Your task to perform on an android device: Clear all items from cart on walmart. Add acer predator to the cart on walmart, then select checkout. Image 0: 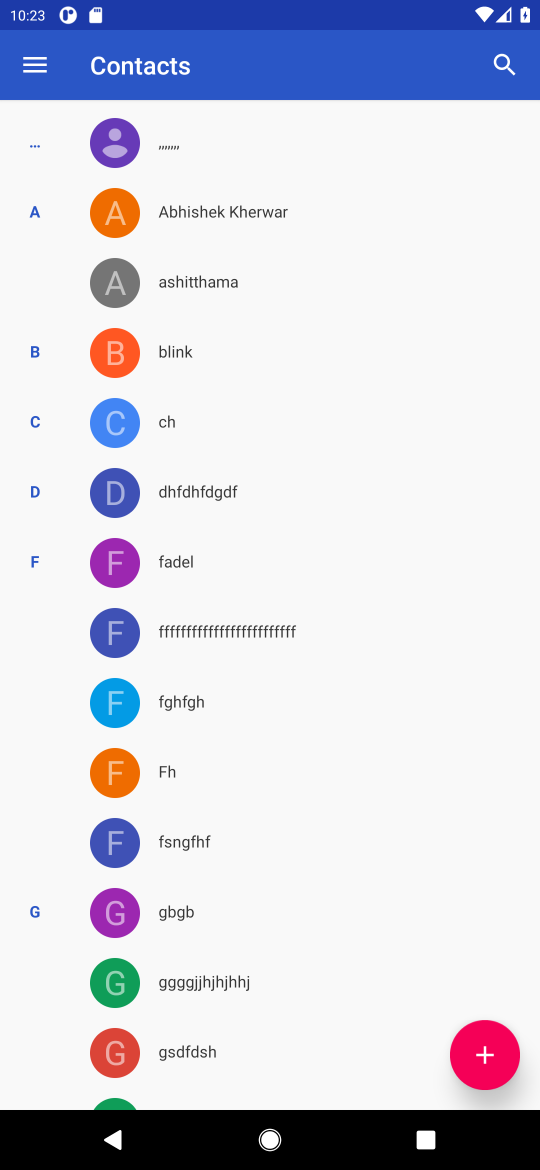
Step 0: press home button
Your task to perform on an android device: Clear all items from cart on walmart. Add acer predator to the cart on walmart, then select checkout. Image 1: 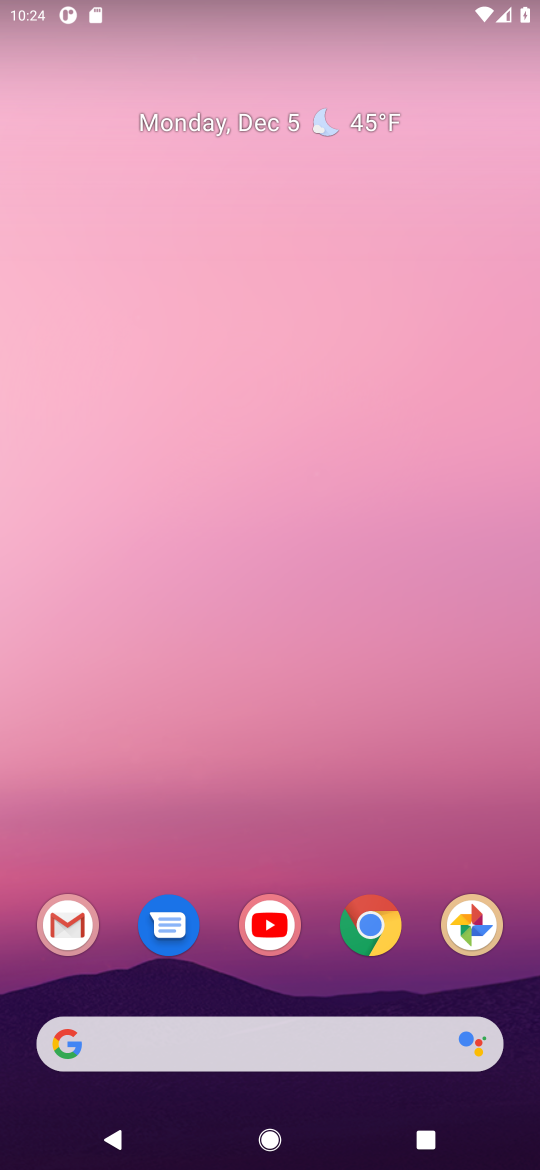
Step 1: click (363, 913)
Your task to perform on an android device: Clear all items from cart on walmart. Add acer predator to the cart on walmart, then select checkout. Image 2: 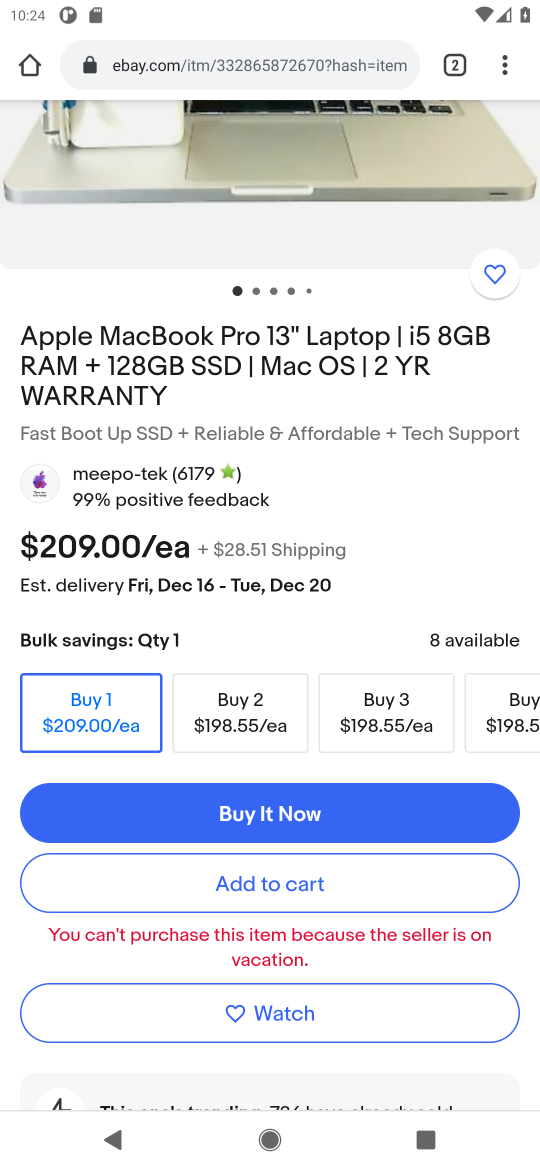
Step 2: click (223, 68)
Your task to perform on an android device: Clear all items from cart on walmart. Add acer predator to the cart on walmart, then select checkout. Image 3: 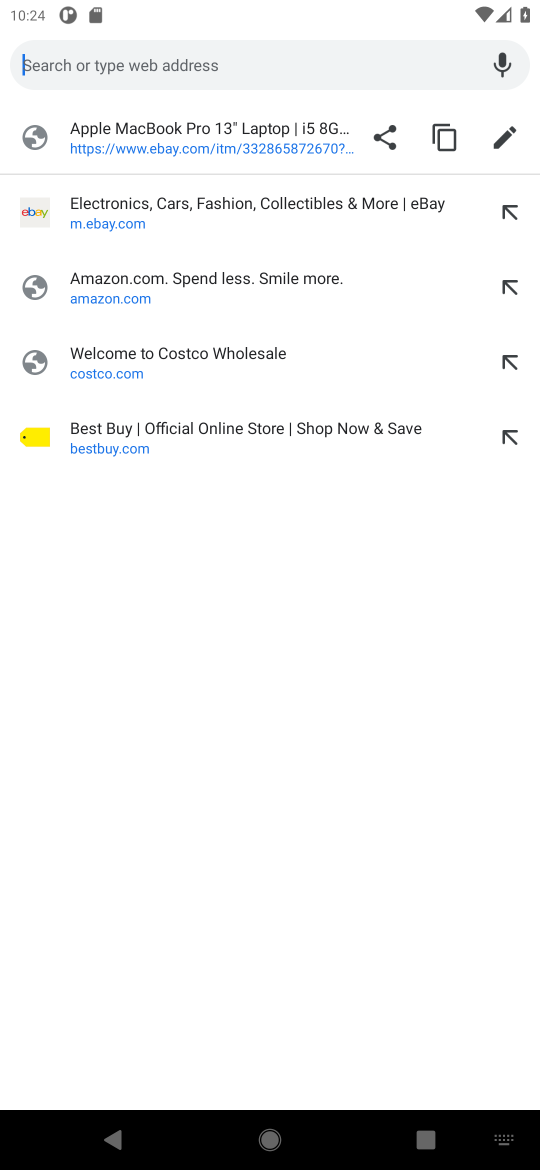
Step 3: type "walmart.com"
Your task to perform on an android device: Clear all items from cart on walmart. Add acer predator to the cart on walmart, then select checkout. Image 4: 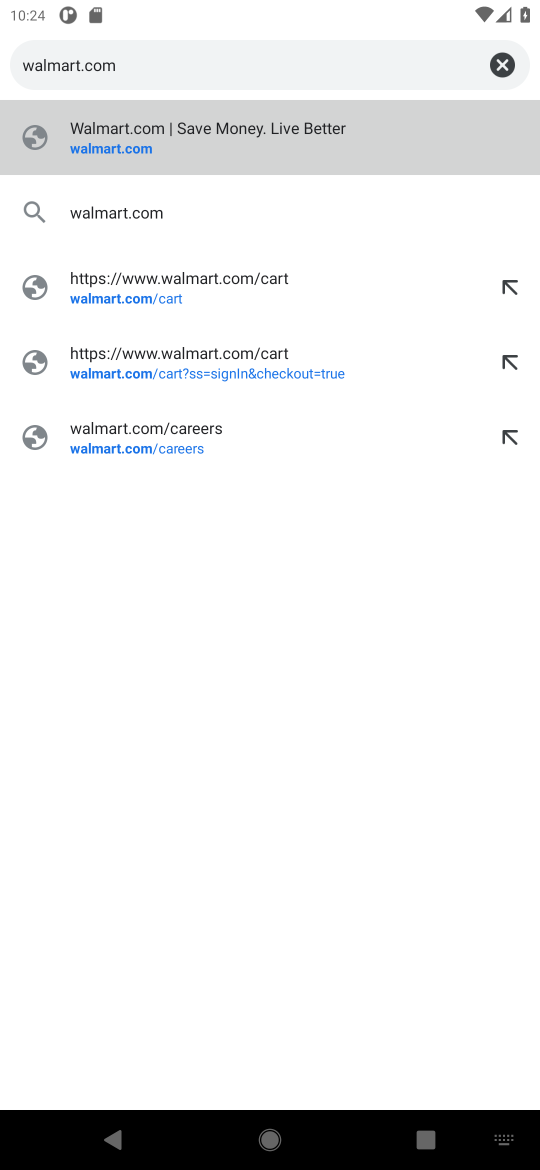
Step 4: click (81, 153)
Your task to perform on an android device: Clear all items from cart on walmart. Add acer predator to the cart on walmart, then select checkout. Image 5: 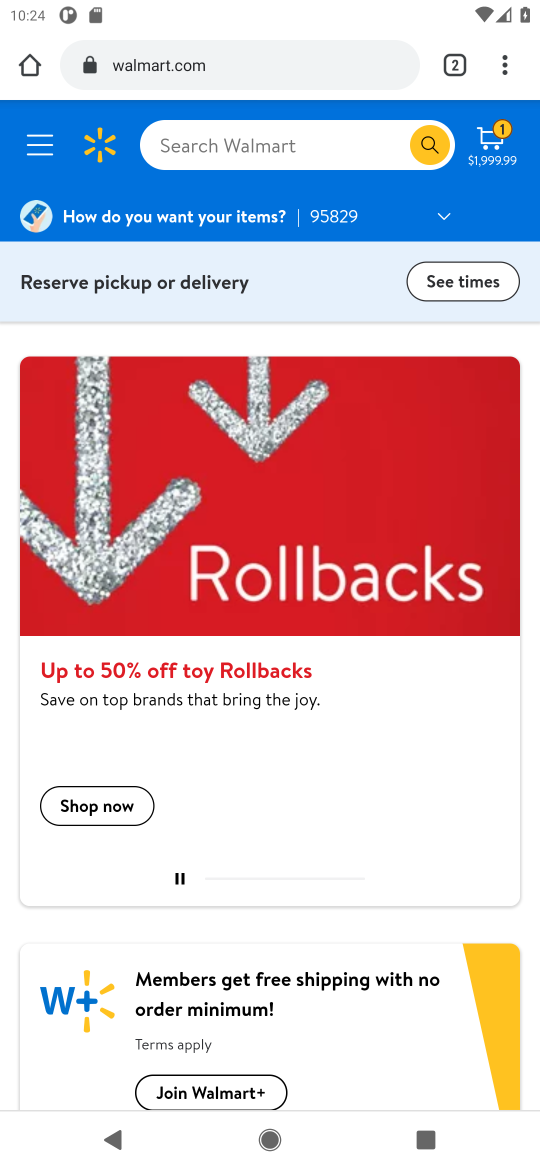
Step 5: click (499, 152)
Your task to perform on an android device: Clear all items from cart on walmart. Add acer predator to the cart on walmart, then select checkout. Image 6: 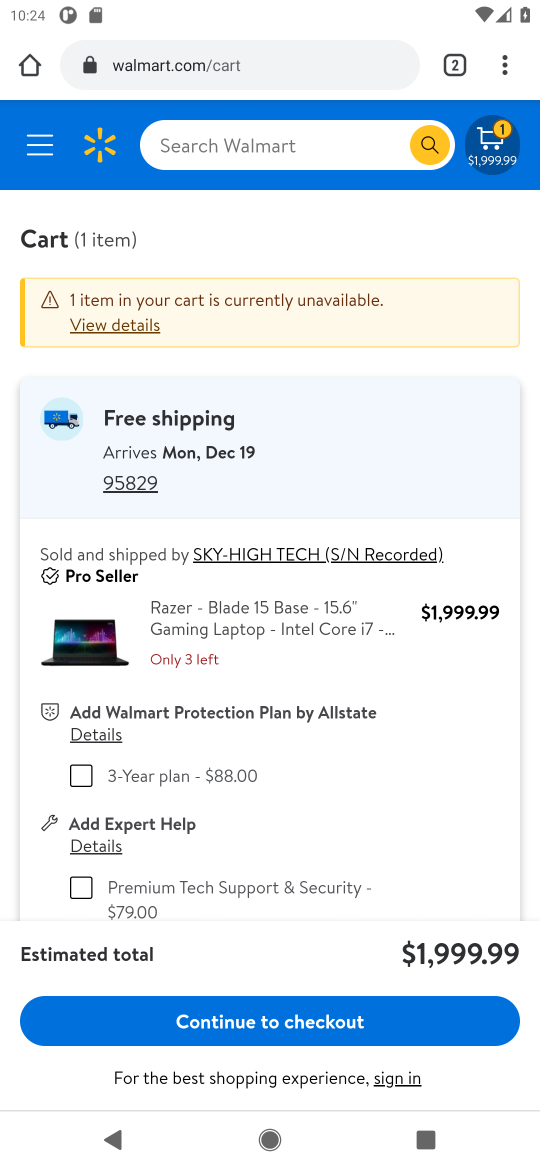
Step 6: drag from (436, 686) to (393, 299)
Your task to perform on an android device: Clear all items from cart on walmart. Add acer predator to the cart on walmart, then select checkout. Image 7: 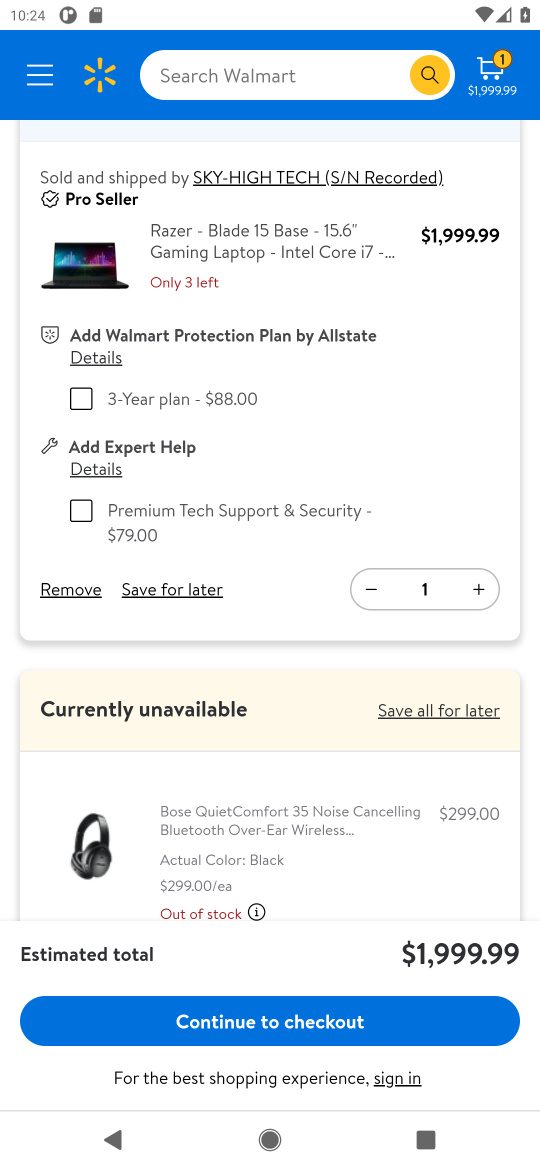
Step 7: click (62, 596)
Your task to perform on an android device: Clear all items from cart on walmart. Add acer predator to the cart on walmart, then select checkout. Image 8: 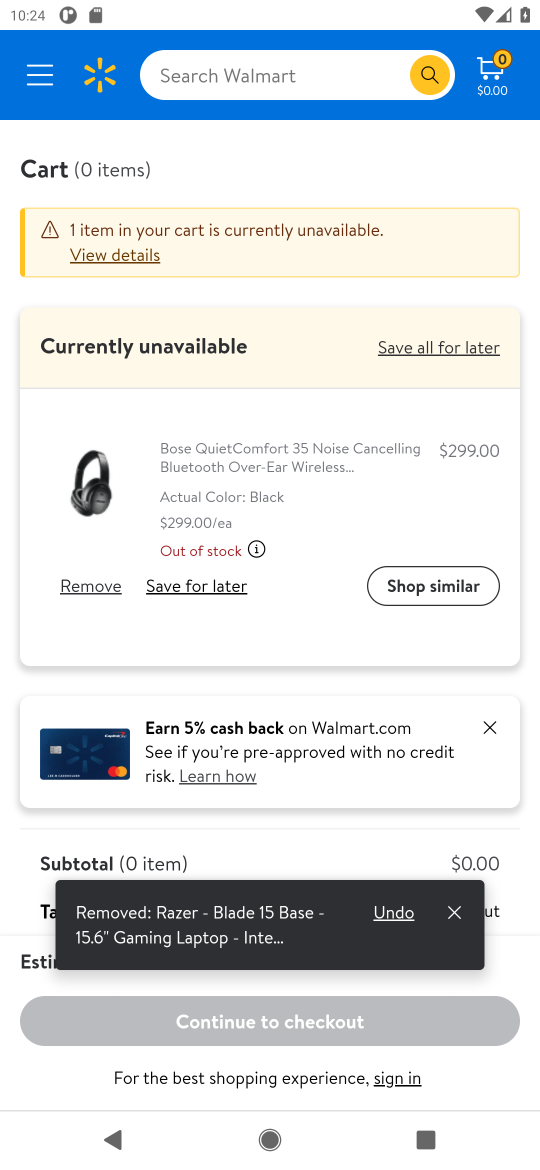
Step 8: click (61, 595)
Your task to perform on an android device: Clear all items from cart on walmart. Add acer predator to the cart on walmart, then select checkout. Image 9: 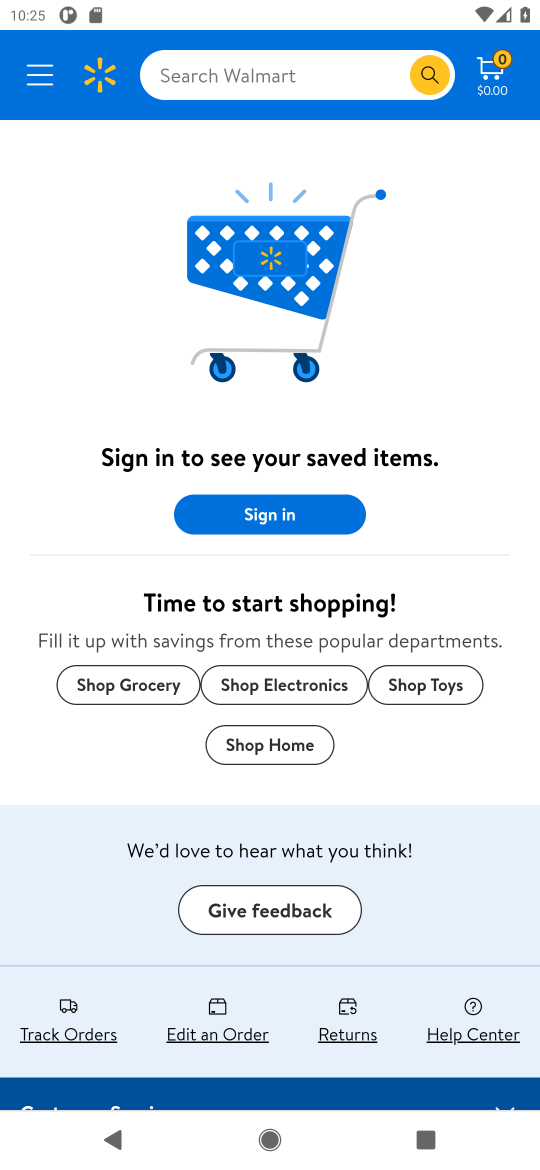
Step 9: click (223, 80)
Your task to perform on an android device: Clear all items from cart on walmart. Add acer predator to the cart on walmart, then select checkout. Image 10: 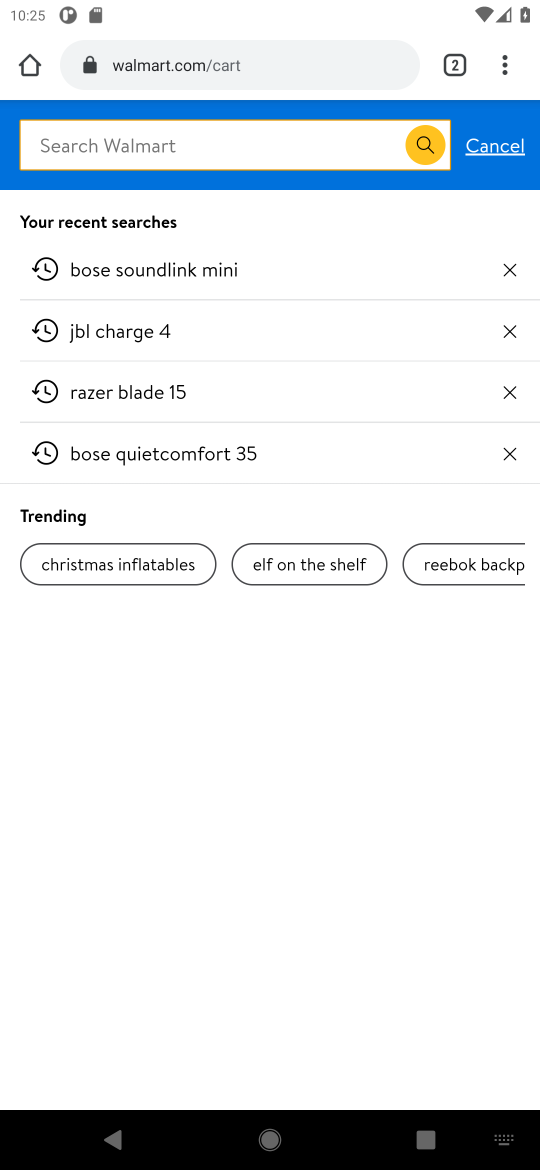
Step 10: type " acer predator"
Your task to perform on an android device: Clear all items from cart on walmart. Add acer predator to the cart on walmart, then select checkout. Image 11: 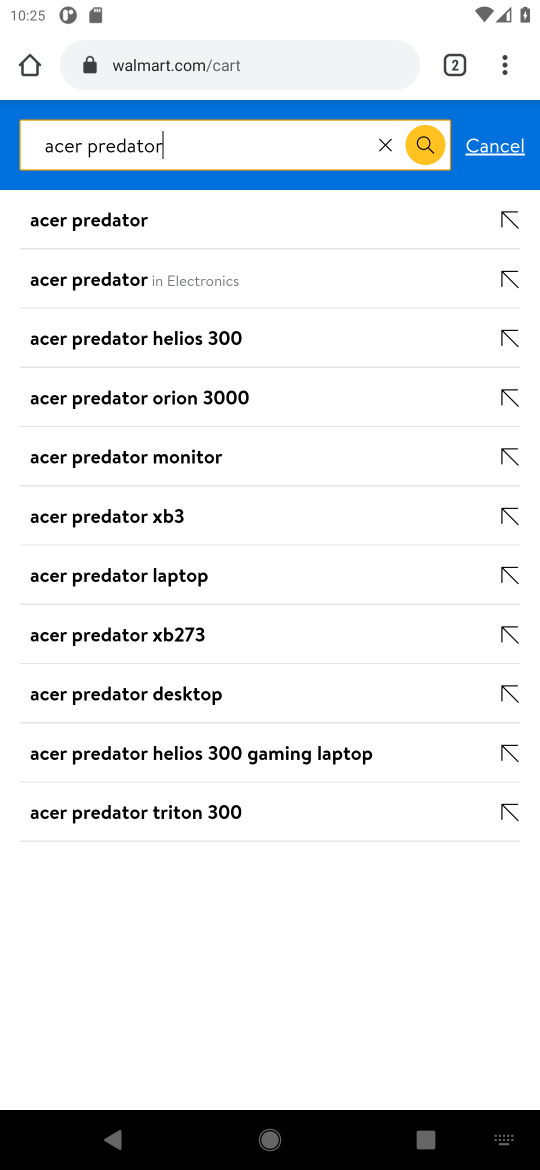
Step 11: click (105, 232)
Your task to perform on an android device: Clear all items from cart on walmart. Add acer predator to the cart on walmart, then select checkout. Image 12: 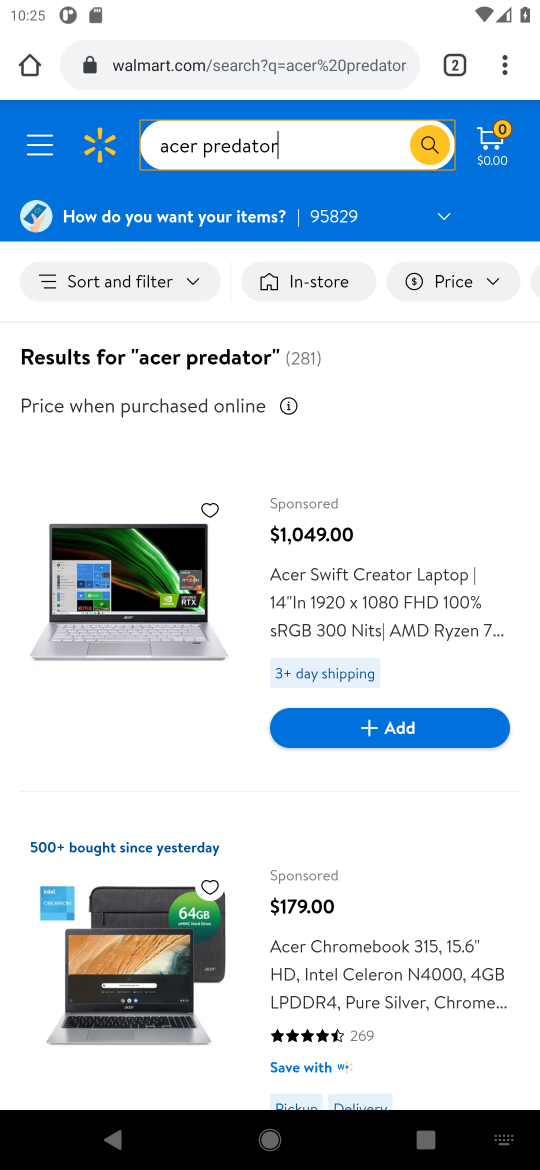
Step 12: drag from (179, 750) to (148, 411)
Your task to perform on an android device: Clear all items from cart on walmart. Add acer predator to the cart on walmart, then select checkout. Image 13: 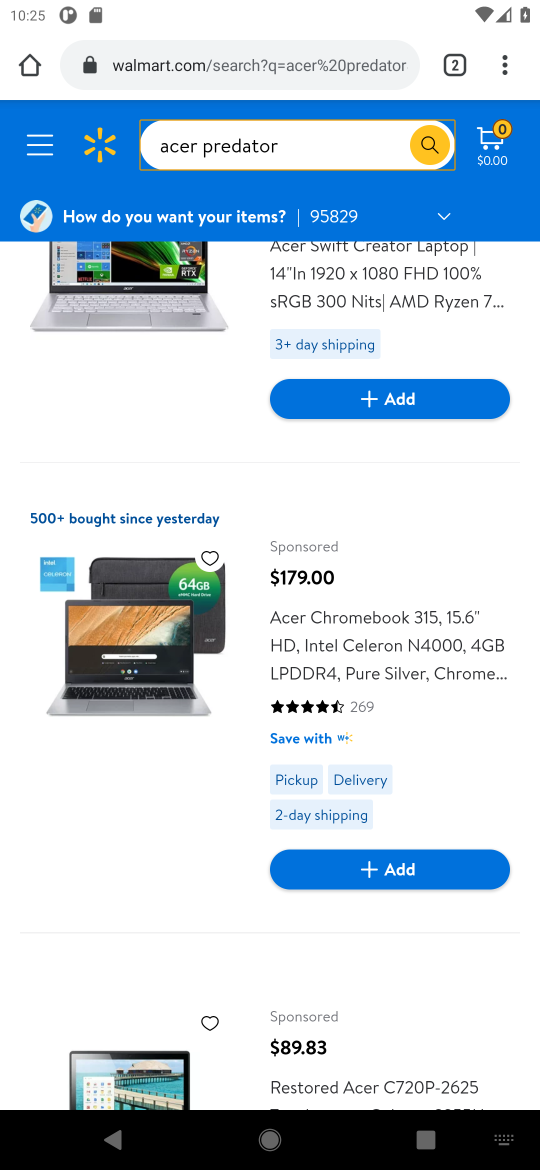
Step 13: drag from (176, 703) to (166, 379)
Your task to perform on an android device: Clear all items from cart on walmart. Add acer predator to the cart on walmart, then select checkout. Image 14: 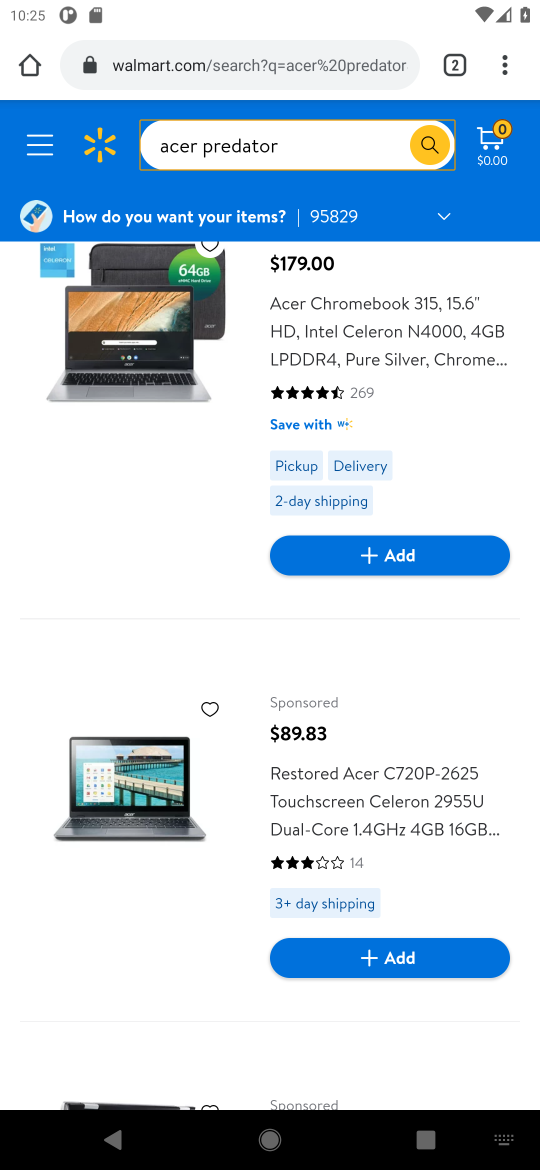
Step 14: drag from (186, 808) to (191, 357)
Your task to perform on an android device: Clear all items from cart on walmart. Add acer predator to the cart on walmart, then select checkout. Image 15: 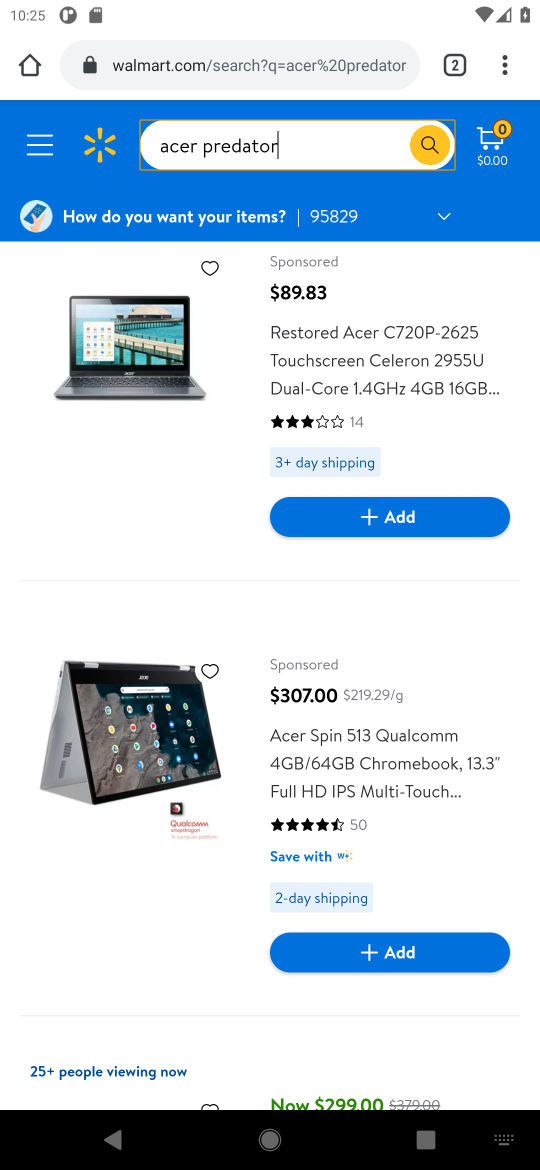
Step 15: drag from (191, 834) to (193, 404)
Your task to perform on an android device: Clear all items from cart on walmart. Add acer predator to the cart on walmart, then select checkout. Image 16: 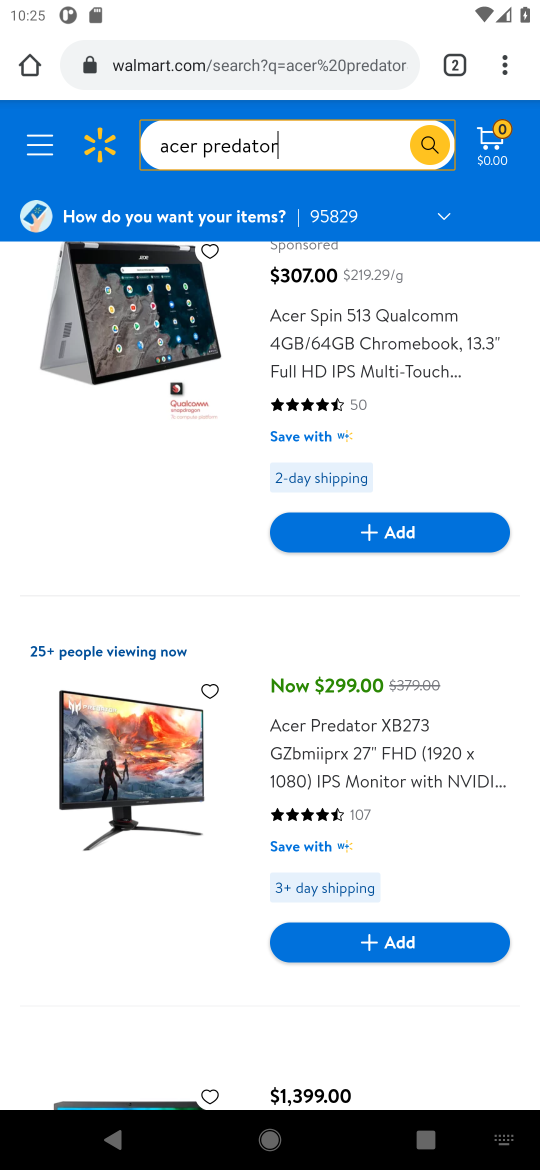
Step 16: drag from (173, 822) to (165, 519)
Your task to perform on an android device: Clear all items from cart on walmart. Add acer predator to the cart on walmart, then select checkout. Image 17: 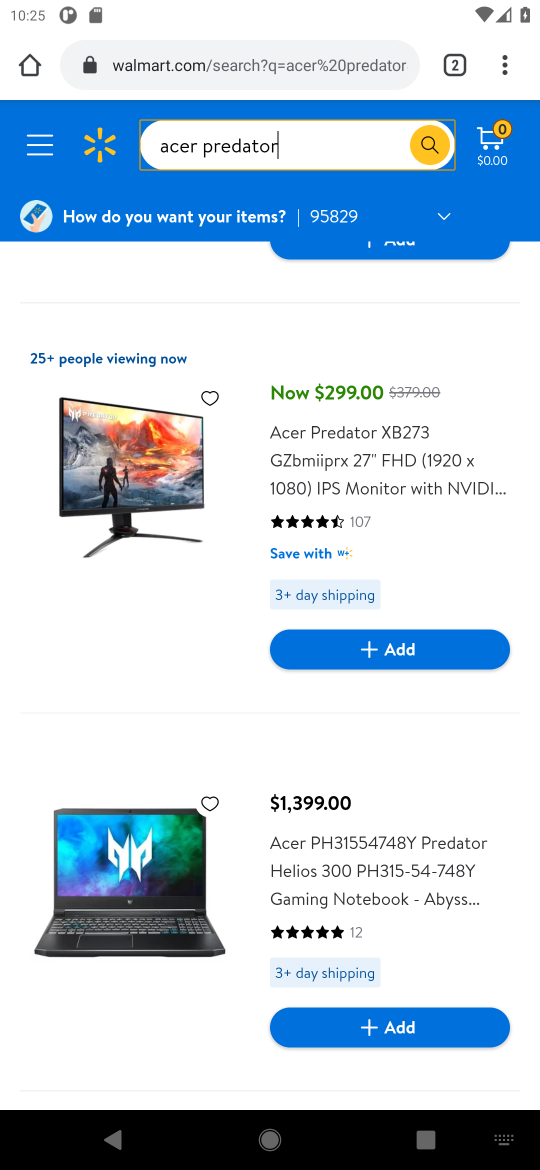
Step 17: click (354, 657)
Your task to perform on an android device: Clear all items from cart on walmart. Add acer predator to the cart on walmart, then select checkout. Image 18: 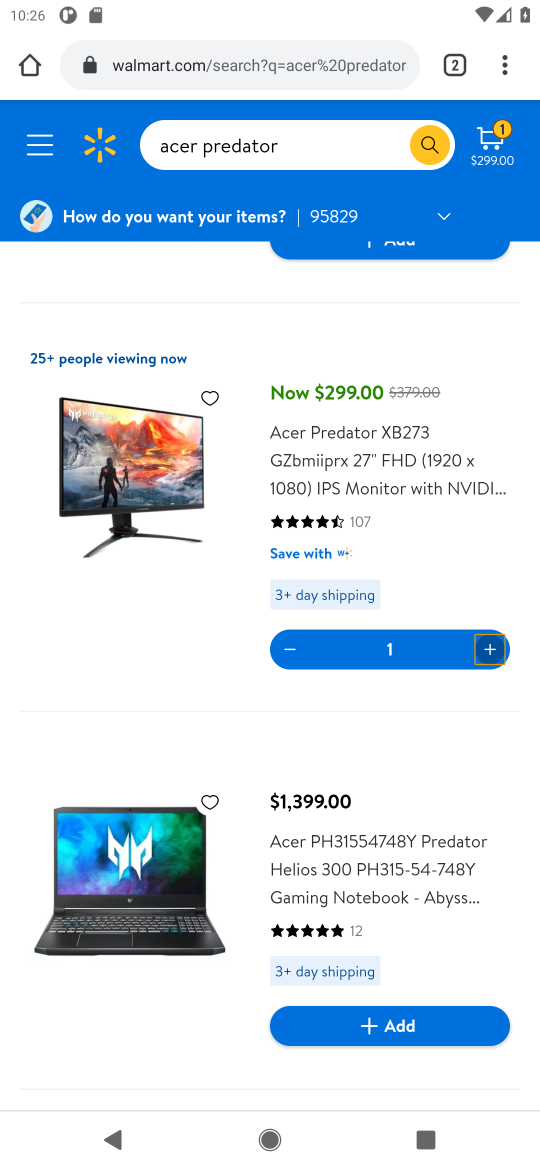
Step 18: click (484, 156)
Your task to perform on an android device: Clear all items from cart on walmart. Add acer predator to the cart on walmart, then select checkout. Image 19: 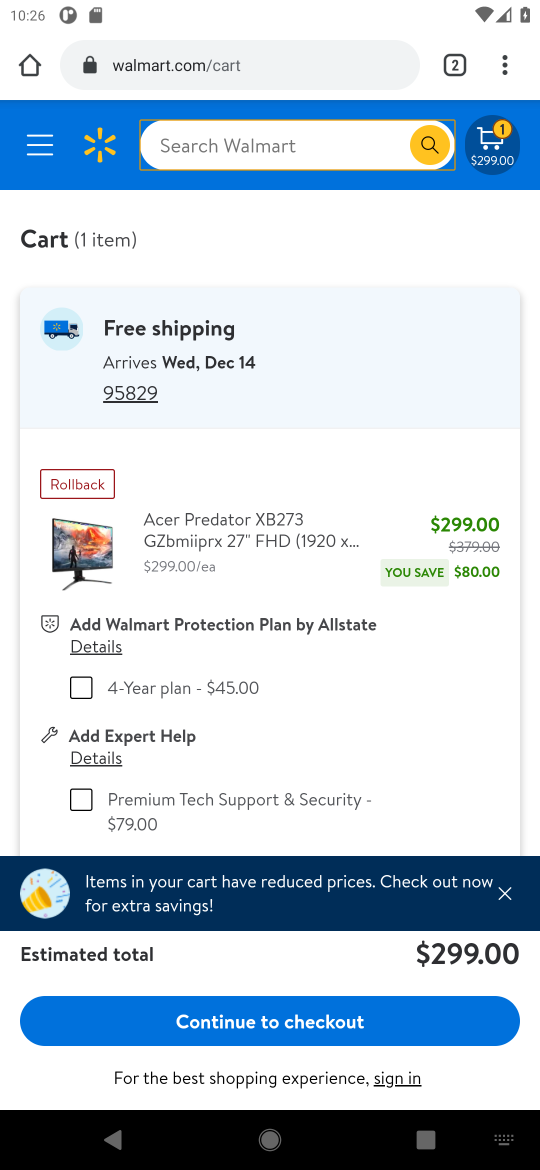
Step 19: drag from (260, 728) to (290, 341)
Your task to perform on an android device: Clear all items from cart on walmart. Add acer predator to the cart on walmart, then select checkout. Image 20: 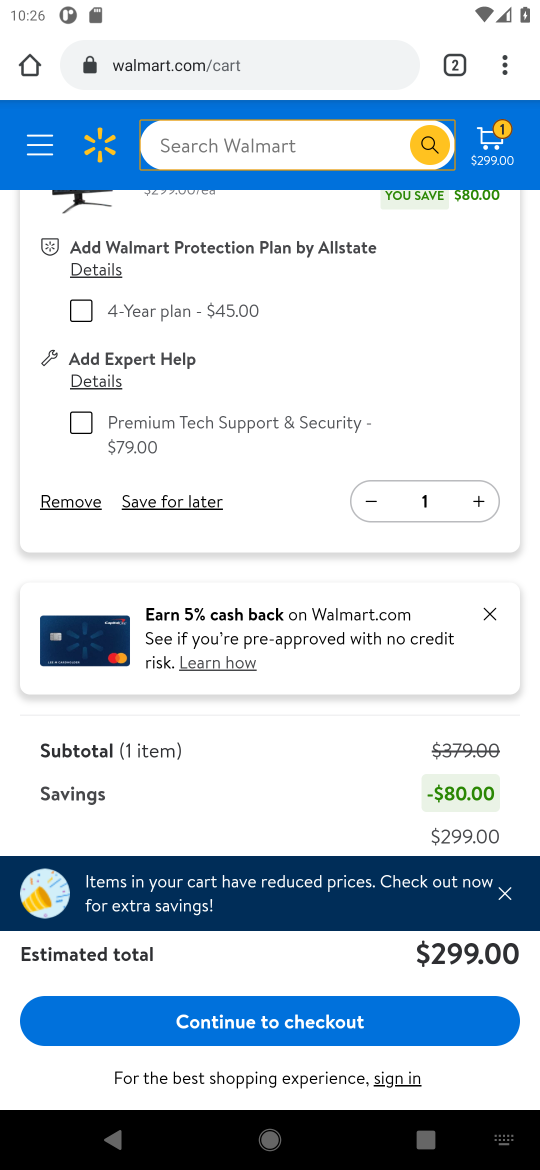
Step 20: click (47, 509)
Your task to perform on an android device: Clear all items from cart on walmart. Add acer predator to the cart on walmart, then select checkout. Image 21: 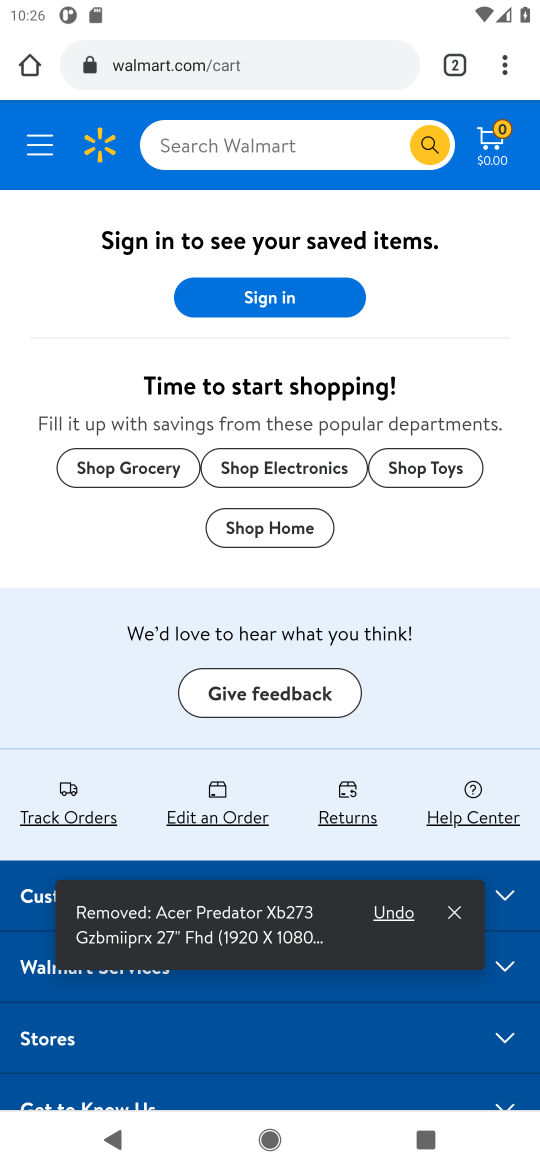
Step 21: drag from (447, 528) to (457, 678)
Your task to perform on an android device: Clear all items from cart on walmart. Add acer predator to the cart on walmart, then select checkout. Image 22: 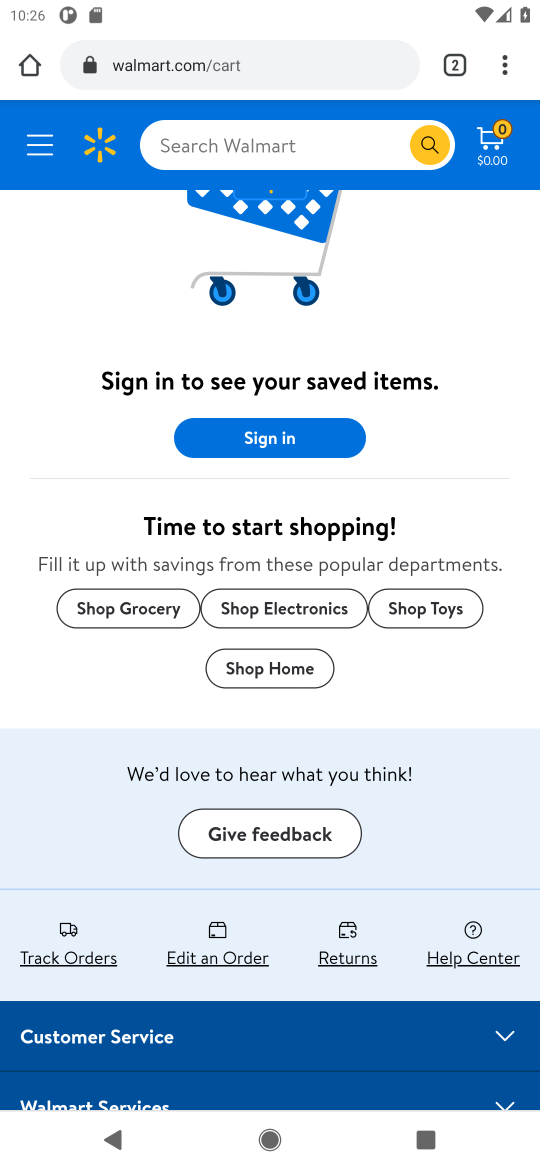
Step 22: click (239, 150)
Your task to perform on an android device: Clear all items from cart on walmart. Add acer predator to the cart on walmart, then select checkout. Image 23: 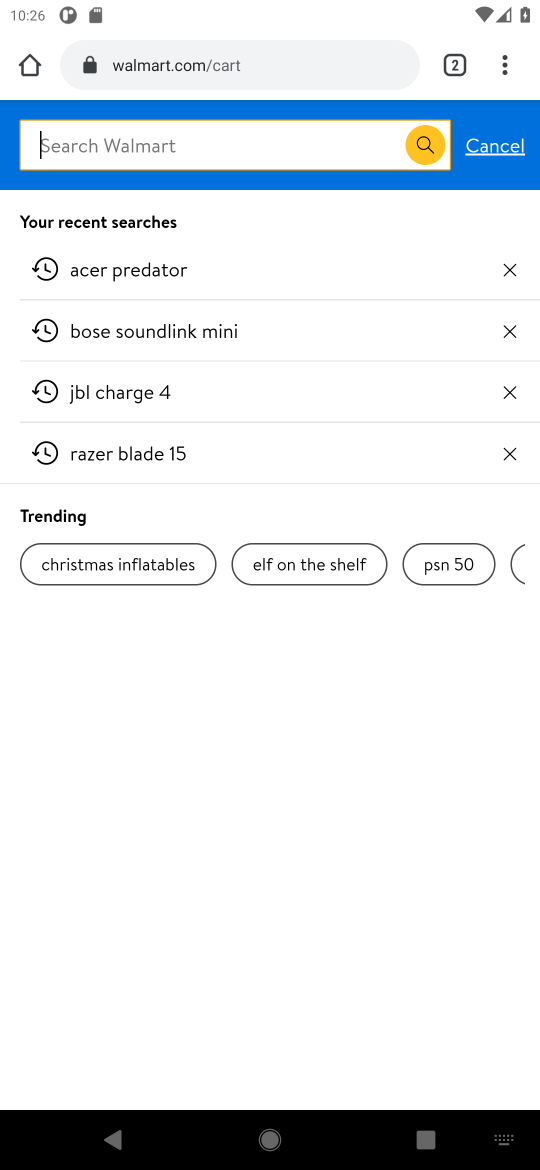
Step 23: type "acer predator"
Your task to perform on an android device: Clear all items from cart on walmart. Add acer predator to the cart on walmart, then select checkout. Image 24: 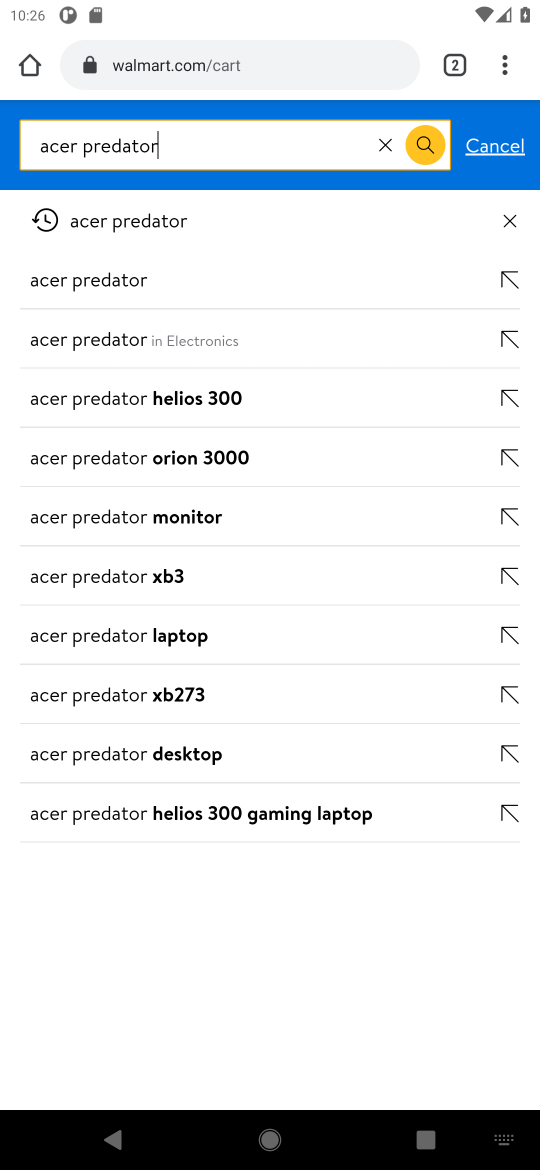
Step 24: click (117, 224)
Your task to perform on an android device: Clear all items from cart on walmart. Add acer predator to the cart on walmart, then select checkout. Image 25: 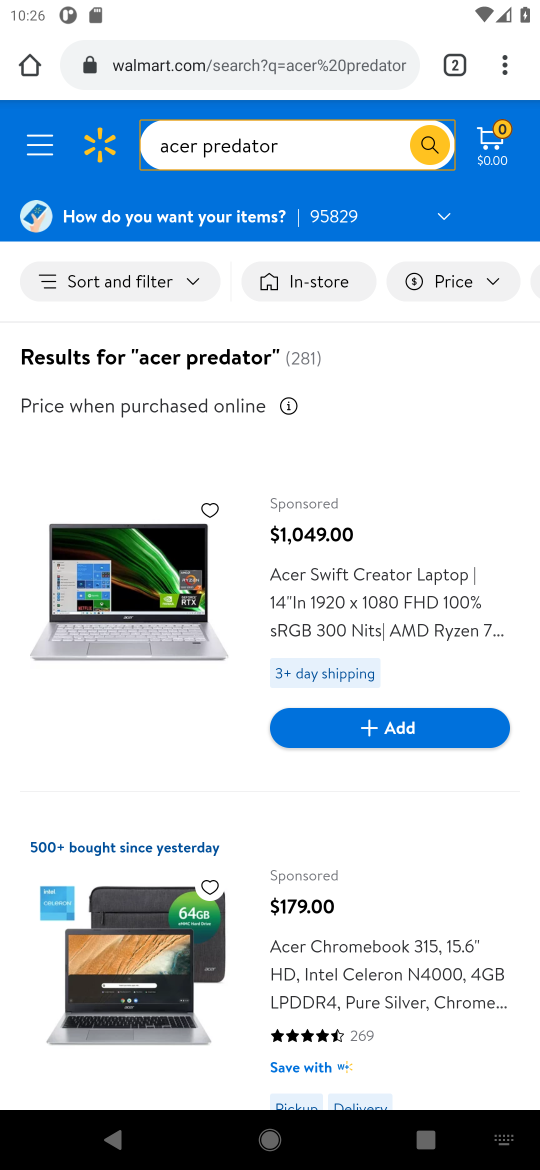
Step 25: drag from (206, 733) to (195, 283)
Your task to perform on an android device: Clear all items from cart on walmart. Add acer predator to the cart on walmart, then select checkout. Image 26: 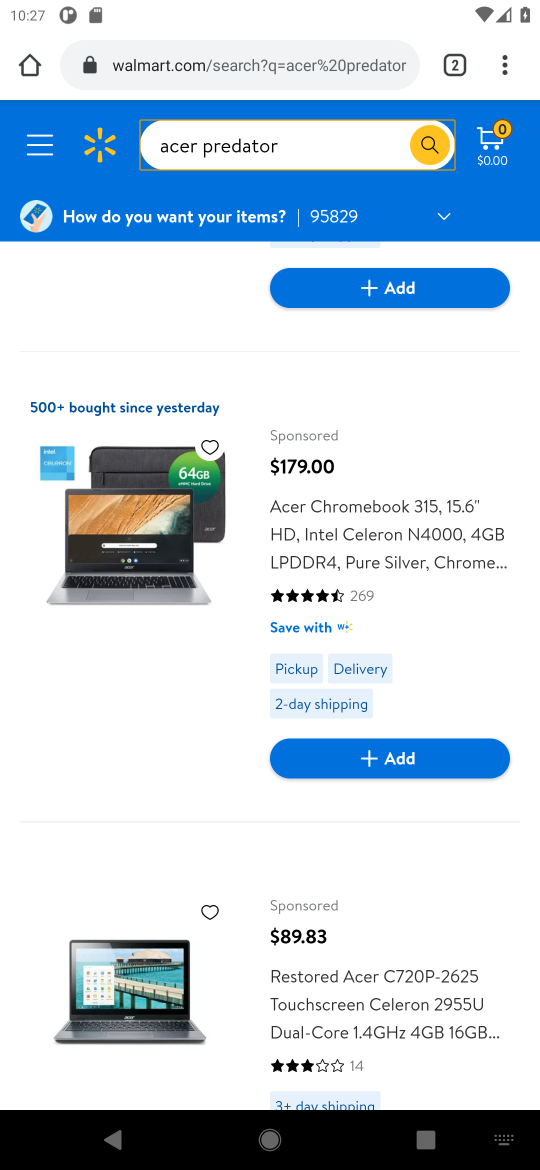
Step 26: drag from (195, 829) to (187, 342)
Your task to perform on an android device: Clear all items from cart on walmart. Add acer predator to the cart on walmart, then select checkout. Image 27: 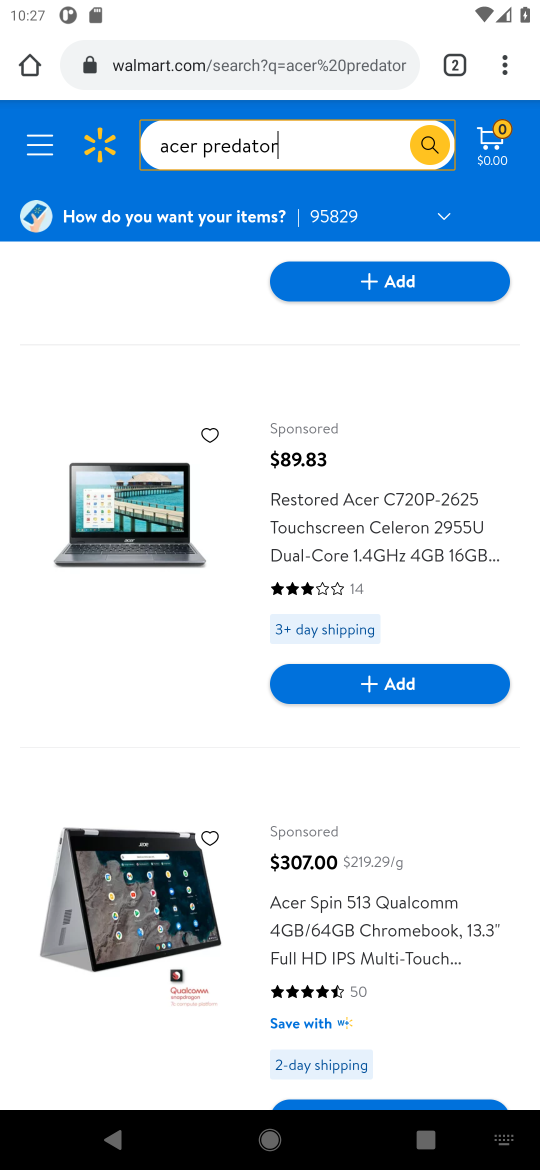
Step 27: drag from (150, 791) to (147, 296)
Your task to perform on an android device: Clear all items from cart on walmart. Add acer predator to the cart on walmart, then select checkout. Image 28: 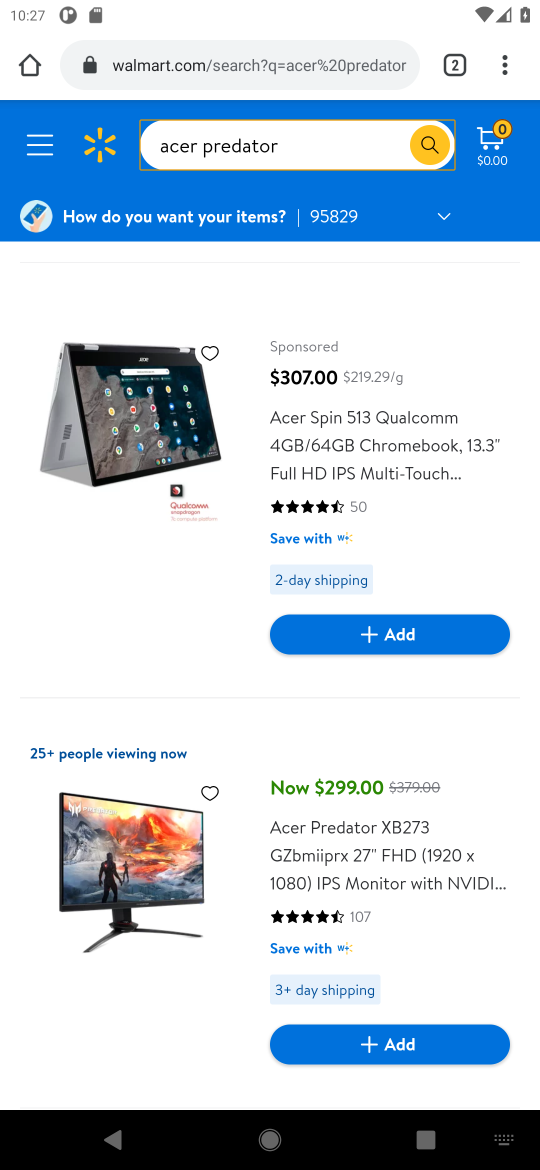
Step 28: drag from (166, 807) to (173, 468)
Your task to perform on an android device: Clear all items from cart on walmart. Add acer predator to the cart on walmart, then select checkout. Image 29: 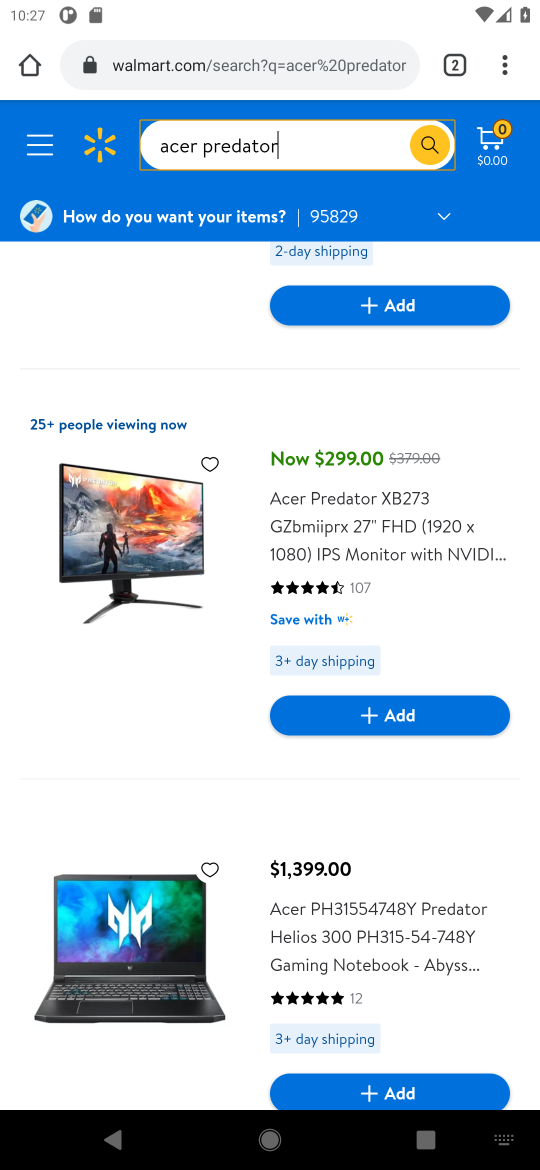
Step 29: click (385, 716)
Your task to perform on an android device: Clear all items from cart on walmart. Add acer predator to the cart on walmart, then select checkout. Image 30: 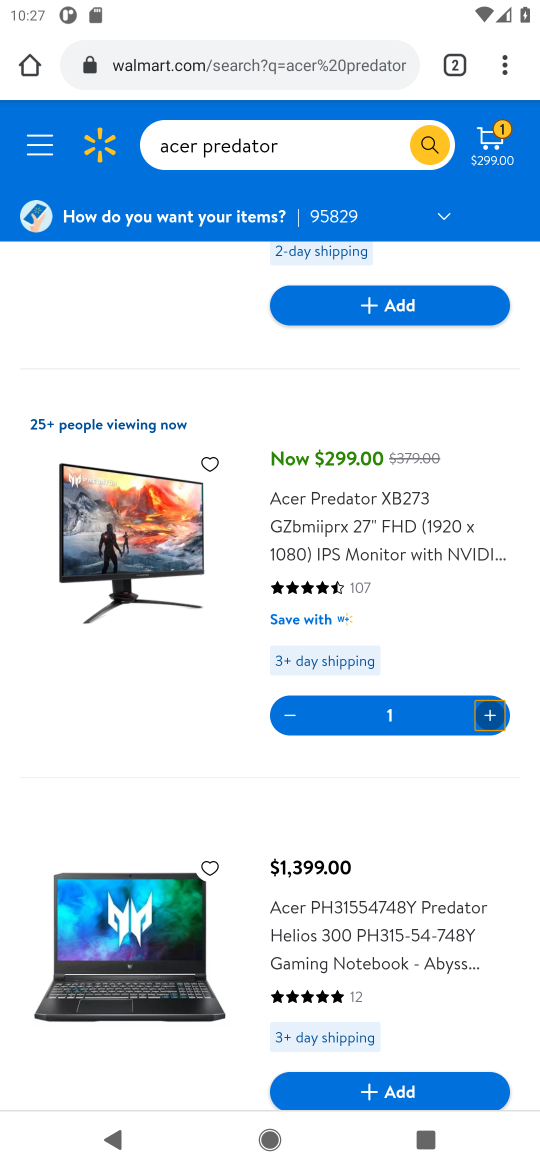
Step 30: click (493, 151)
Your task to perform on an android device: Clear all items from cart on walmart. Add acer predator to the cart on walmart, then select checkout. Image 31: 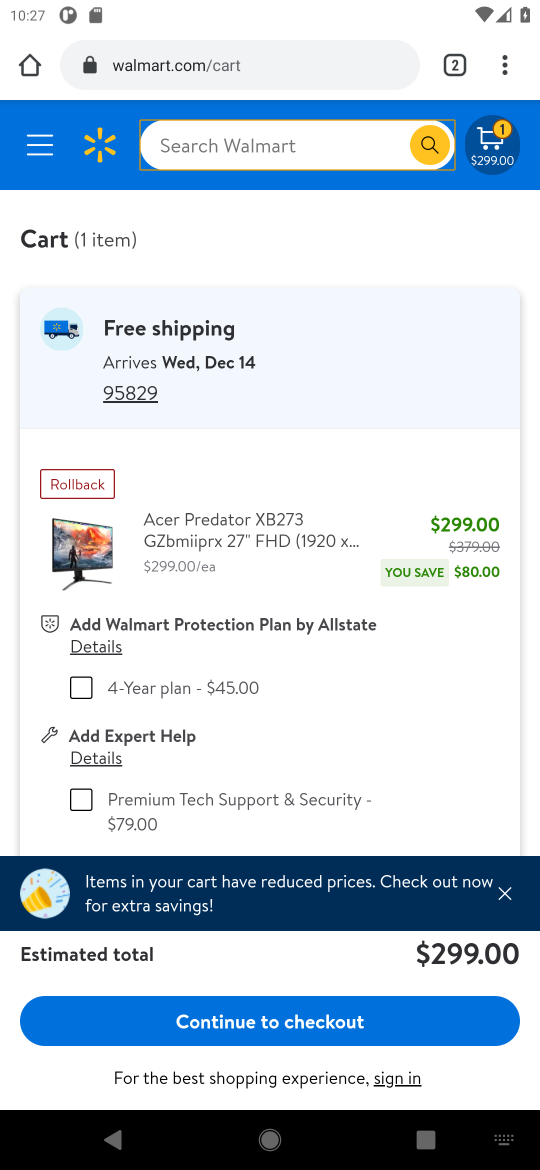
Step 31: click (228, 1015)
Your task to perform on an android device: Clear all items from cart on walmart. Add acer predator to the cart on walmart, then select checkout. Image 32: 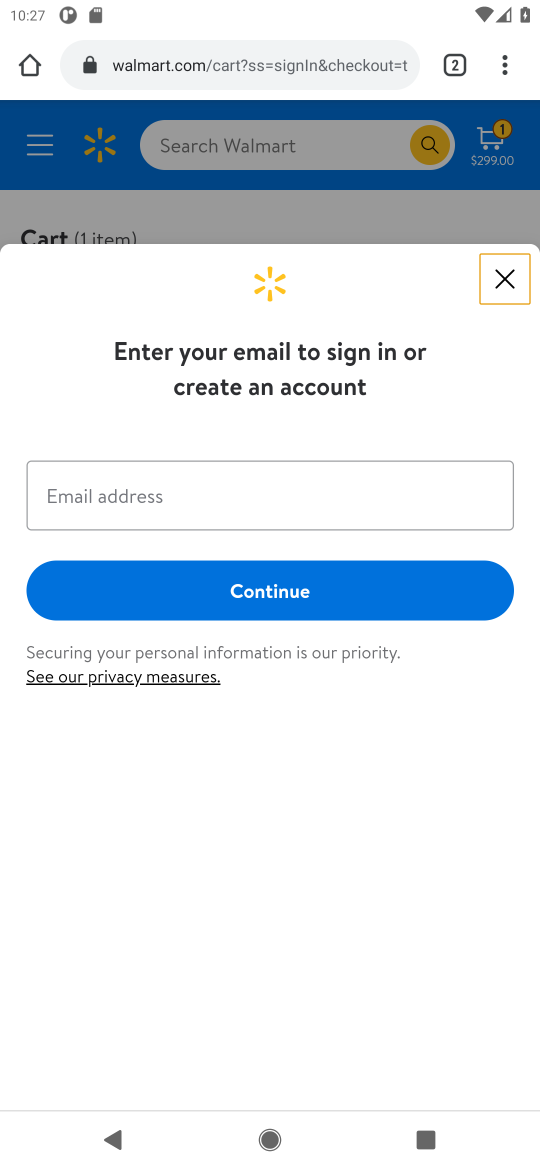
Step 32: task complete